Your task to perform on an android device: open device folders in google photos Image 0: 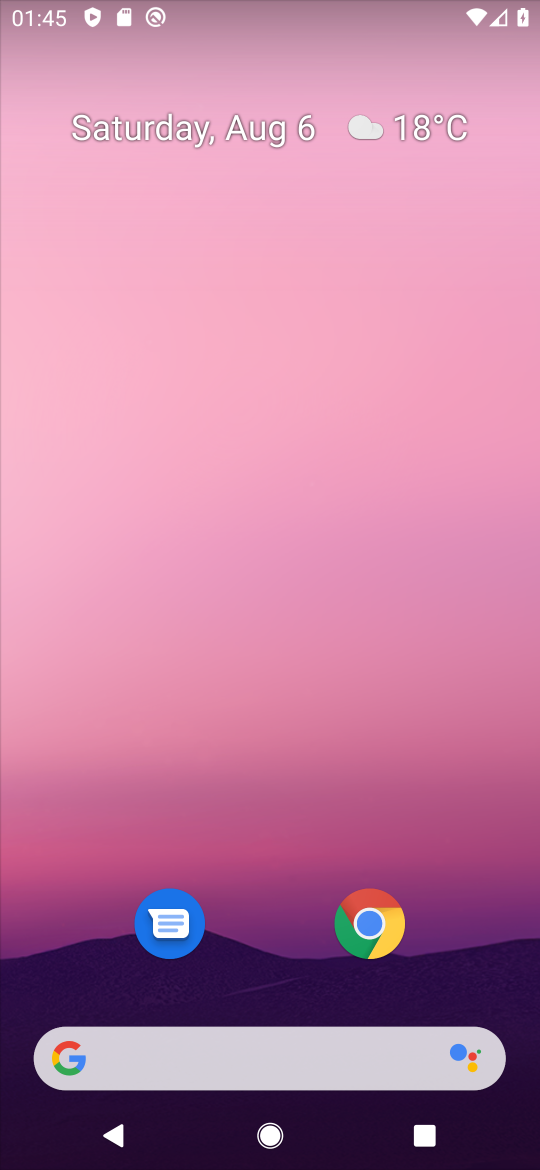
Step 0: drag from (217, 1010) to (416, 6)
Your task to perform on an android device: open device folders in google photos Image 1: 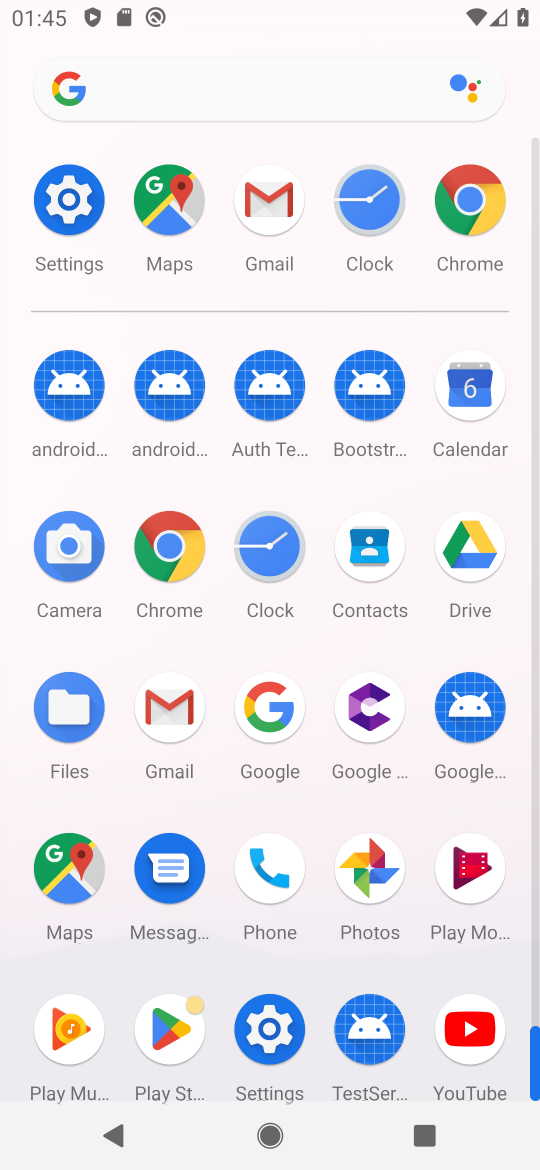
Step 1: click (378, 859)
Your task to perform on an android device: open device folders in google photos Image 2: 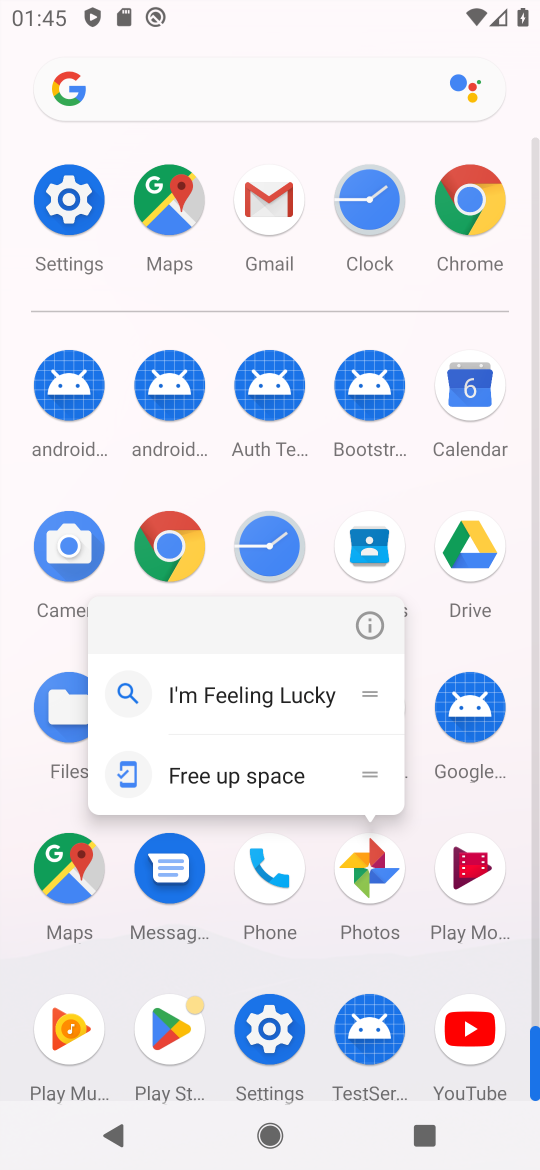
Step 2: click (362, 617)
Your task to perform on an android device: open device folders in google photos Image 3: 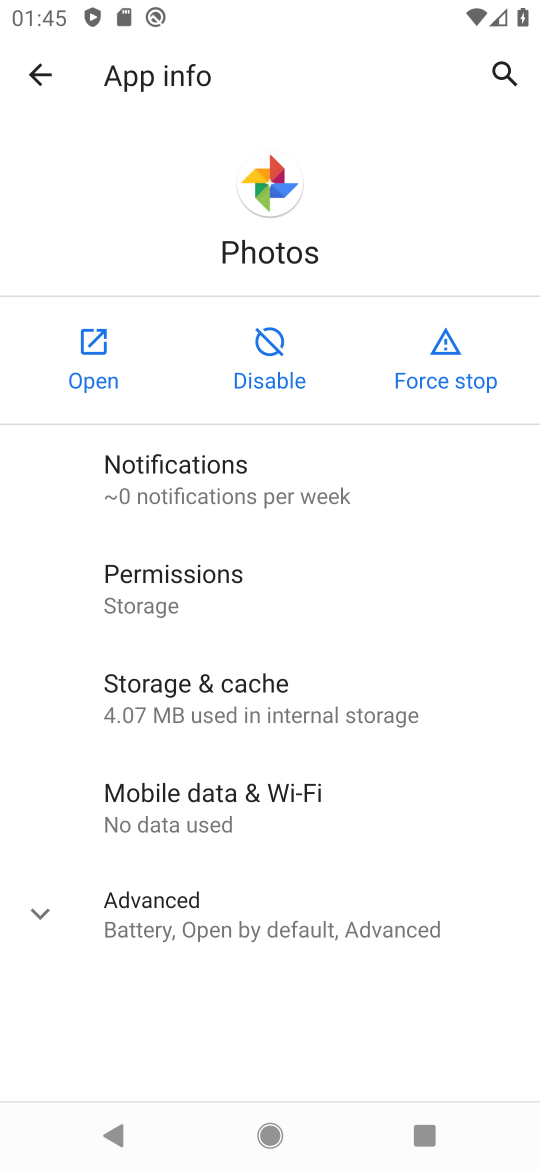
Step 3: click (107, 383)
Your task to perform on an android device: open device folders in google photos Image 4: 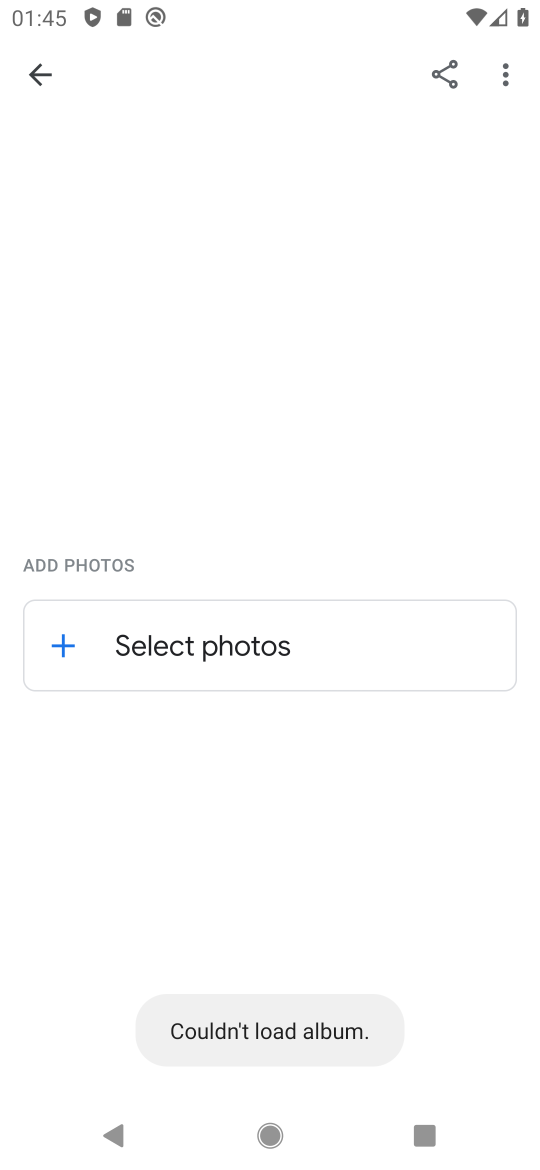
Step 4: drag from (286, 920) to (262, 448)
Your task to perform on an android device: open device folders in google photos Image 5: 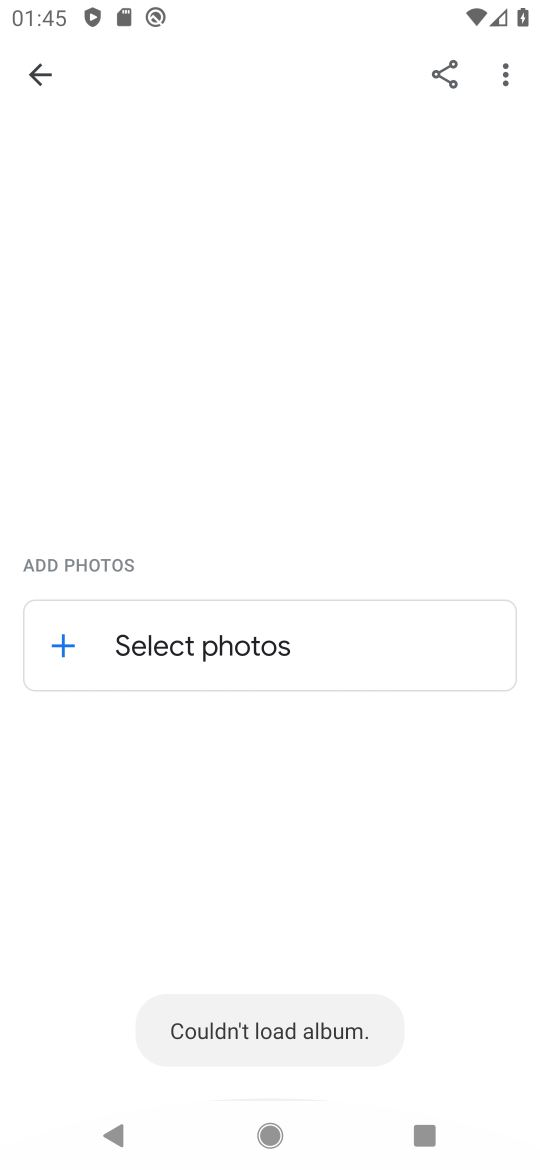
Step 5: drag from (261, 341) to (339, 861)
Your task to perform on an android device: open device folders in google photos Image 6: 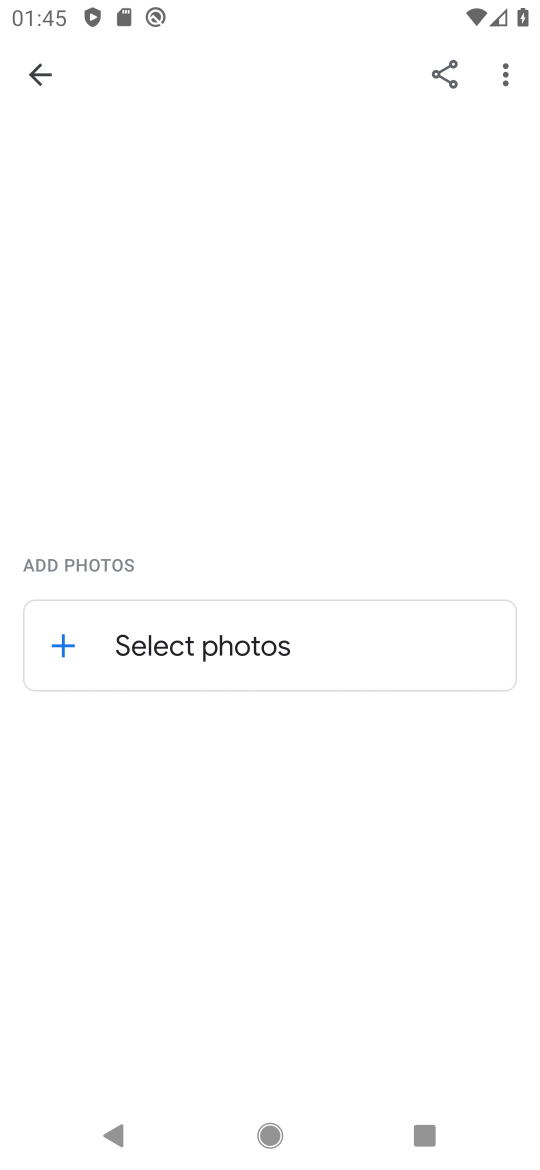
Step 6: click (54, 77)
Your task to perform on an android device: open device folders in google photos Image 7: 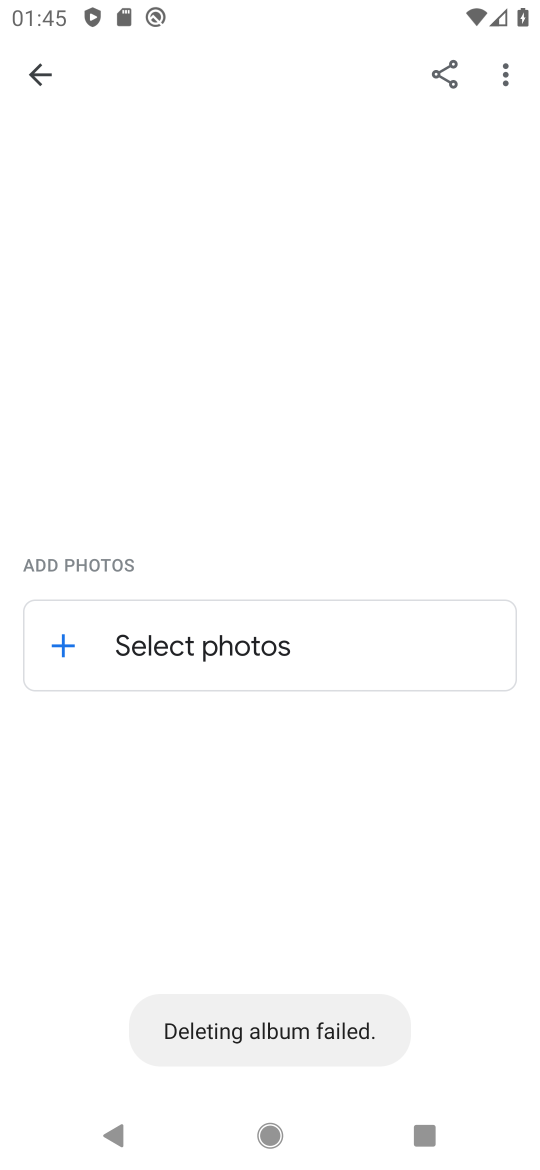
Step 7: task complete